Your task to perform on an android device: Open eBay Image 0: 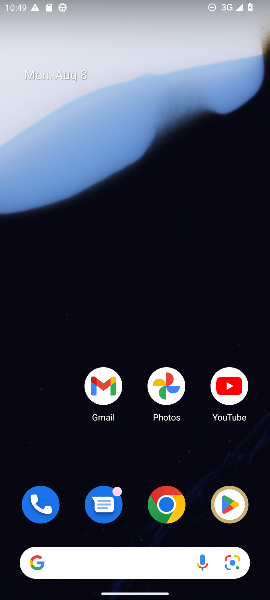
Step 0: click (165, 506)
Your task to perform on an android device: Open eBay Image 1: 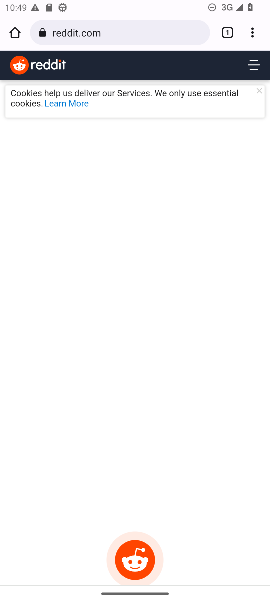
Step 1: click (120, 32)
Your task to perform on an android device: Open eBay Image 2: 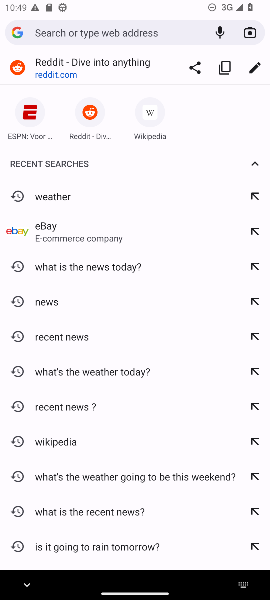
Step 2: type "eBay"
Your task to perform on an android device: Open eBay Image 3: 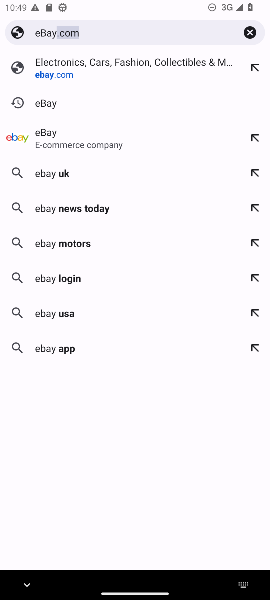
Step 3: click (75, 71)
Your task to perform on an android device: Open eBay Image 4: 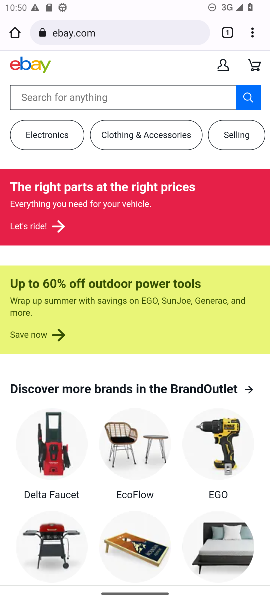
Step 4: task complete